Your task to perform on an android device: Open the clock app Image 0: 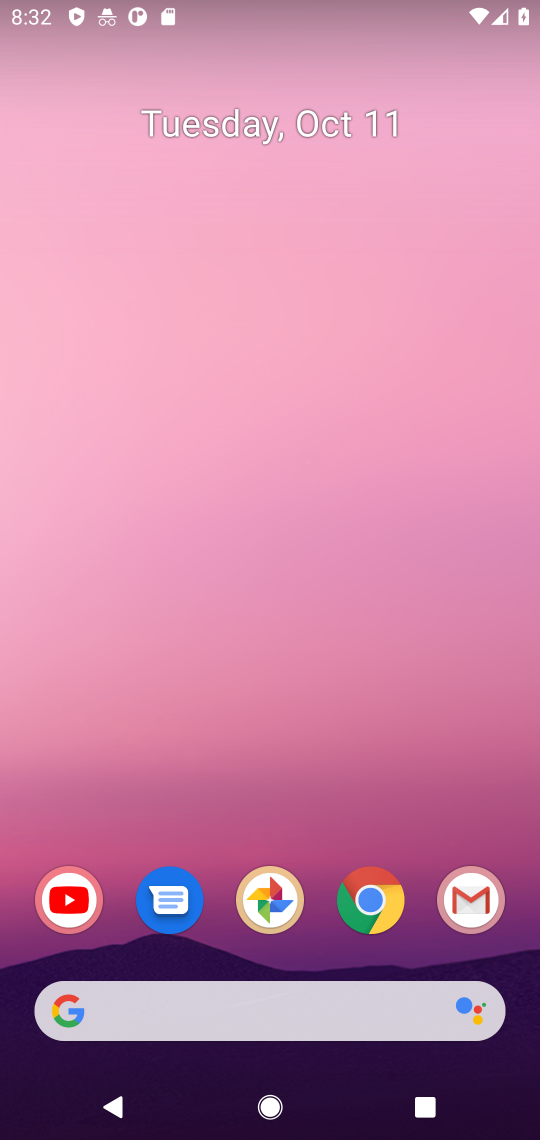
Step 0: drag from (391, 841) to (318, 325)
Your task to perform on an android device: Open the clock app Image 1: 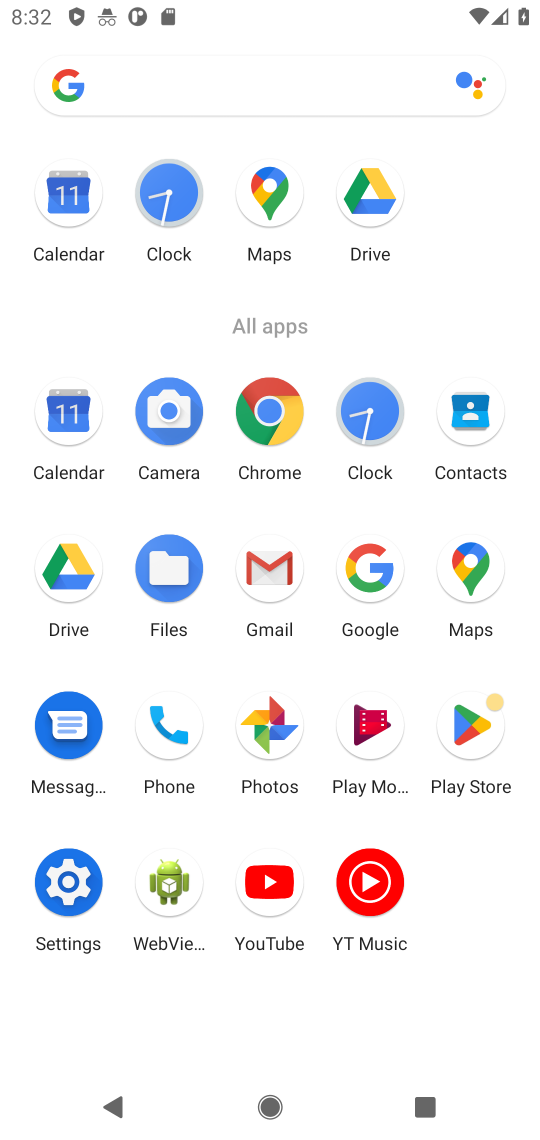
Step 1: click (380, 417)
Your task to perform on an android device: Open the clock app Image 2: 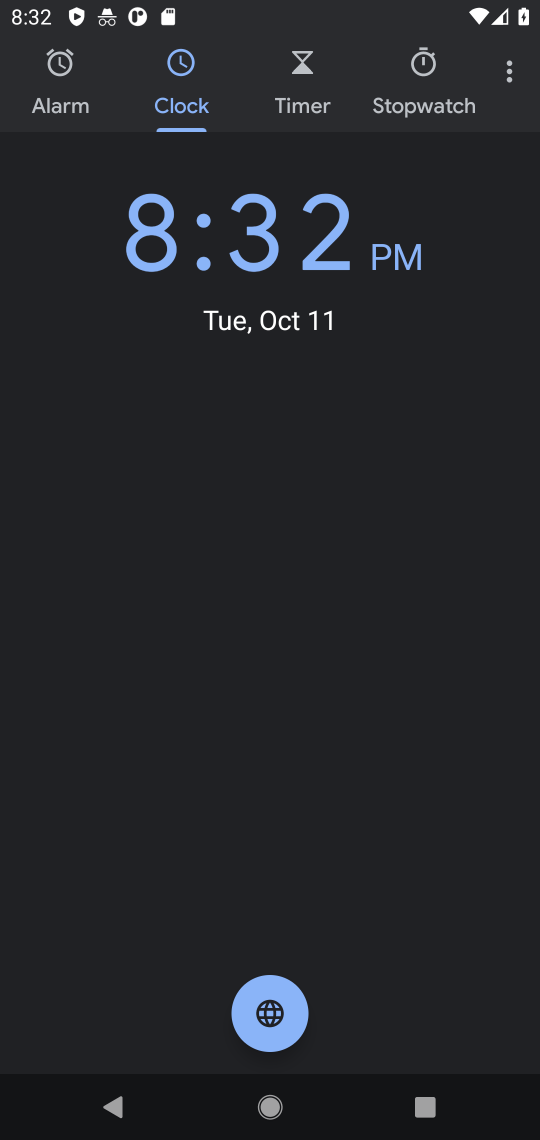
Step 2: click (61, 100)
Your task to perform on an android device: Open the clock app Image 3: 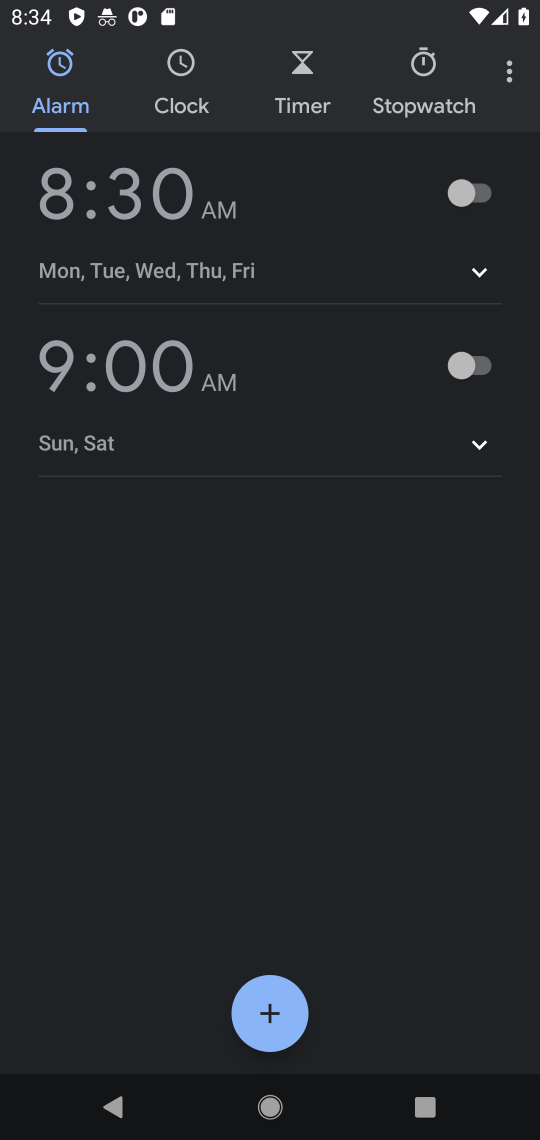
Step 3: task complete